Your task to perform on an android device: turn notification dots off Image 0: 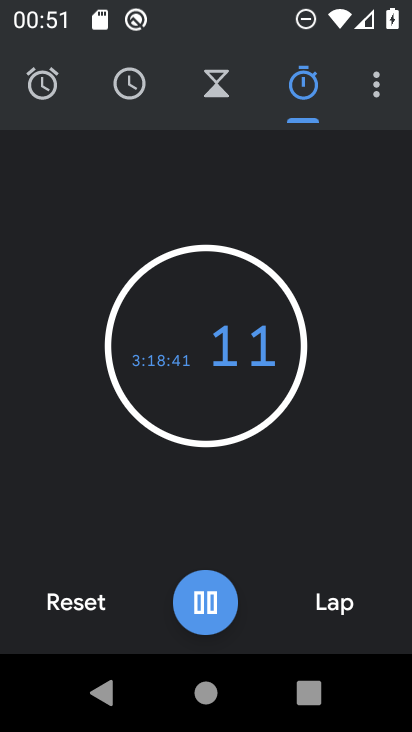
Step 0: press home button
Your task to perform on an android device: turn notification dots off Image 1: 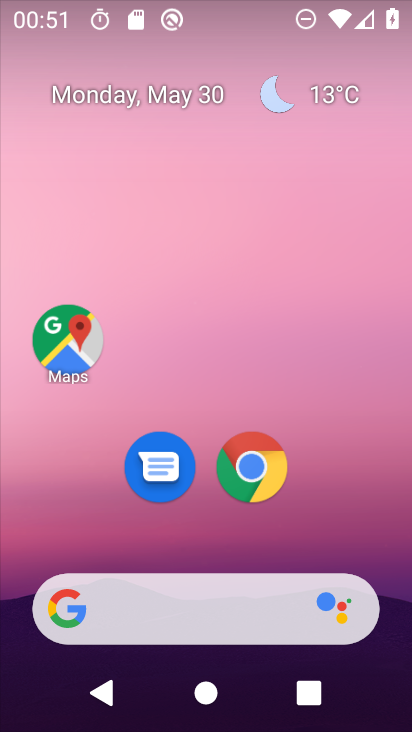
Step 1: drag from (204, 554) to (199, 261)
Your task to perform on an android device: turn notification dots off Image 2: 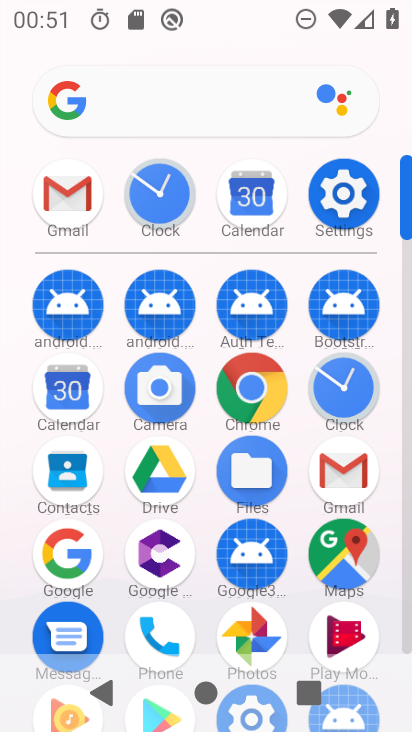
Step 2: click (324, 183)
Your task to perform on an android device: turn notification dots off Image 3: 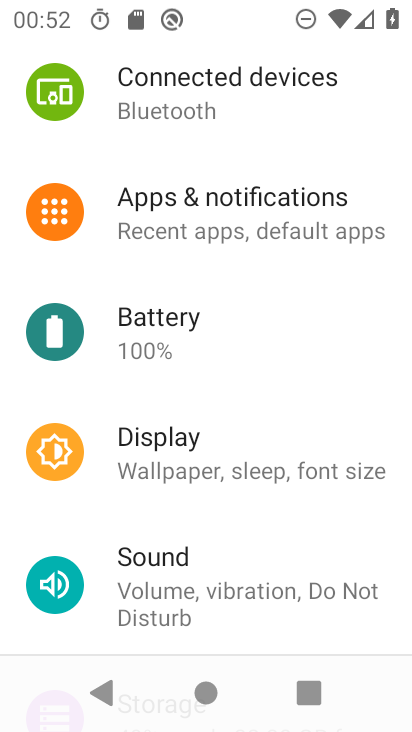
Step 3: click (221, 255)
Your task to perform on an android device: turn notification dots off Image 4: 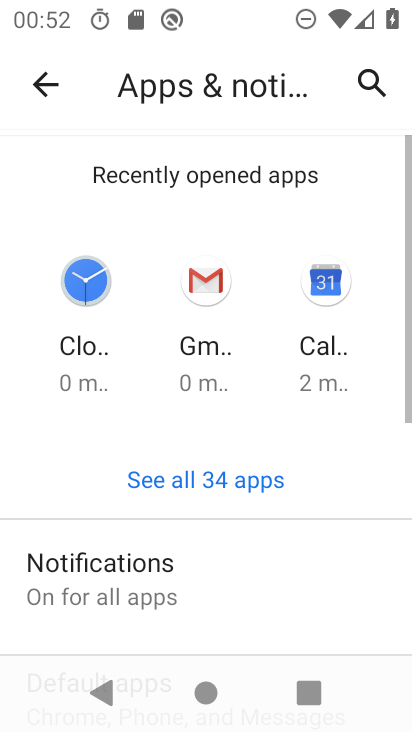
Step 4: drag from (220, 595) to (236, 360)
Your task to perform on an android device: turn notification dots off Image 5: 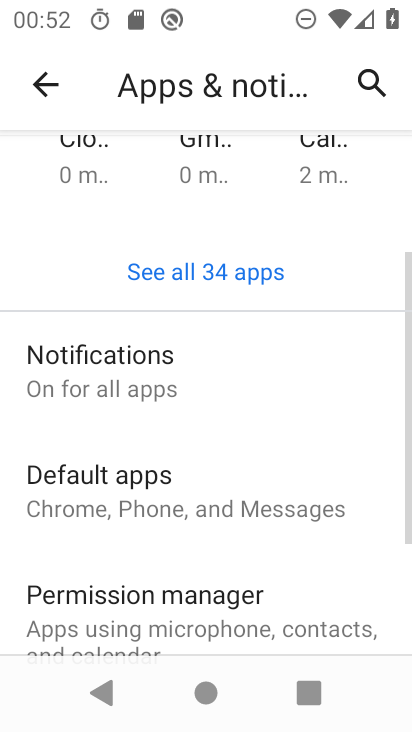
Step 5: click (224, 362)
Your task to perform on an android device: turn notification dots off Image 6: 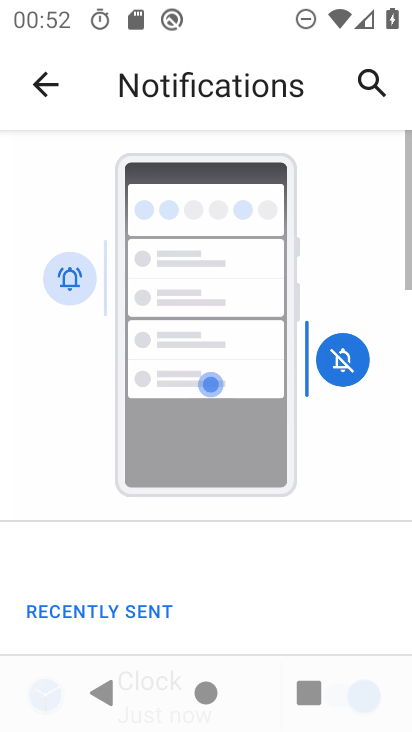
Step 6: drag from (230, 581) to (230, 293)
Your task to perform on an android device: turn notification dots off Image 7: 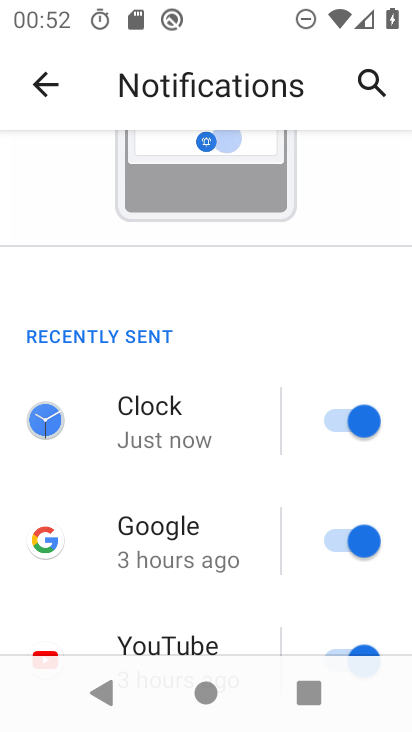
Step 7: drag from (219, 518) to (262, 309)
Your task to perform on an android device: turn notification dots off Image 8: 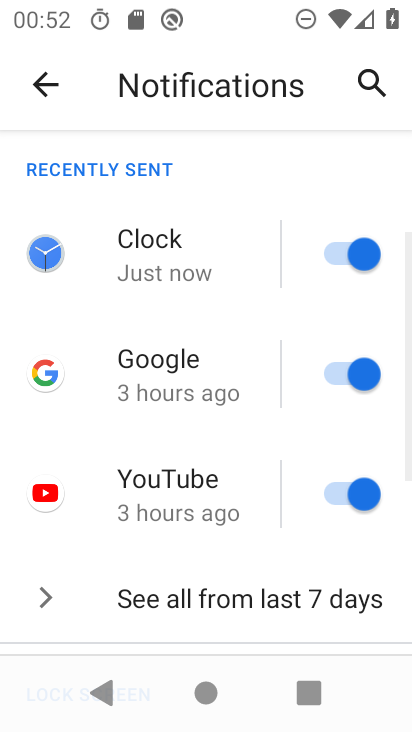
Step 8: drag from (248, 603) to (215, 294)
Your task to perform on an android device: turn notification dots off Image 9: 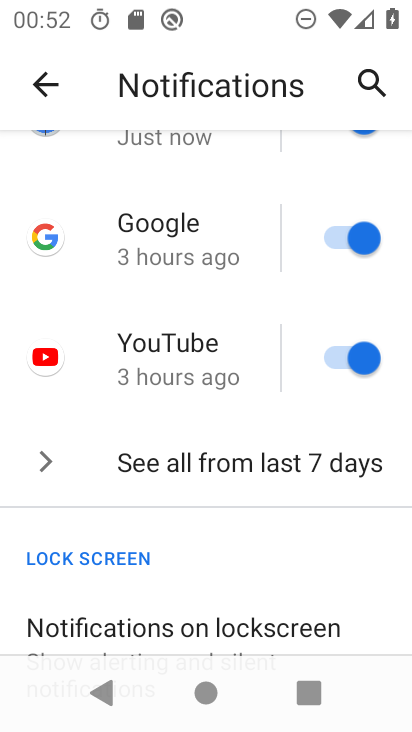
Step 9: drag from (256, 565) to (242, 291)
Your task to perform on an android device: turn notification dots off Image 10: 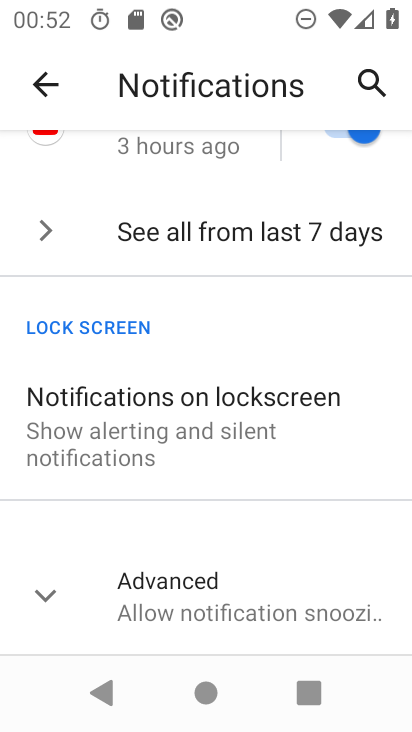
Step 10: click (201, 579)
Your task to perform on an android device: turn notification dots off Image 11: 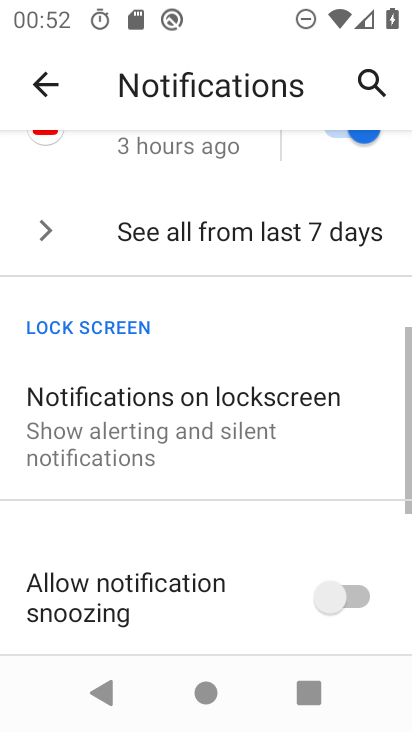
Step 11: task complete